Your task to perform on an android device: set default search engine in the chrome app Image 0: 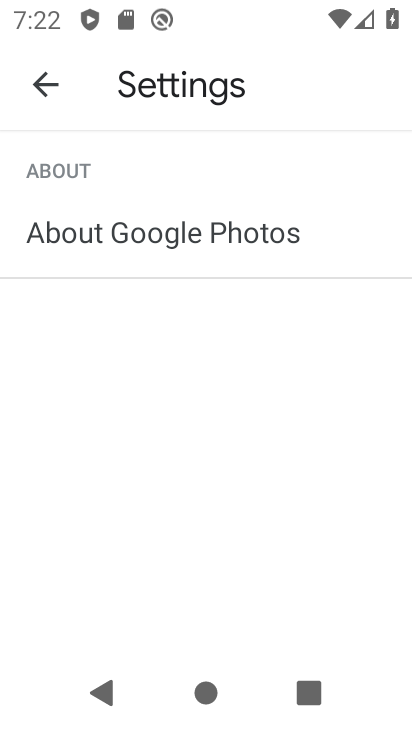
Step 0: press home button
Your task to perform on an android device: set default search engine in the chrome app Image 1: 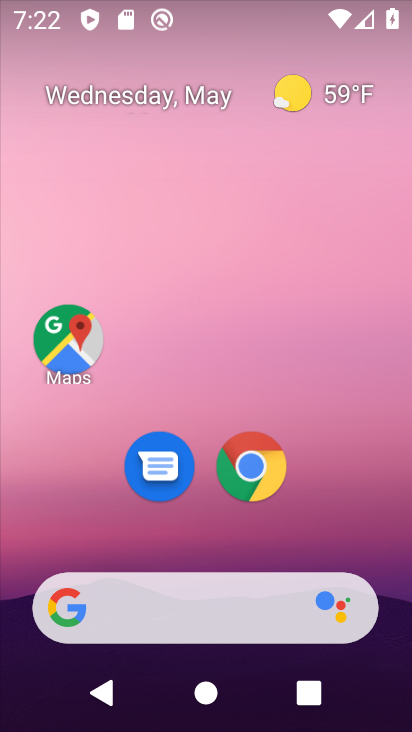
Step 1: drag from (283, 520) to (376, 105)
Your task to perform on an android device: set default search engine in the chrome app Image 2: 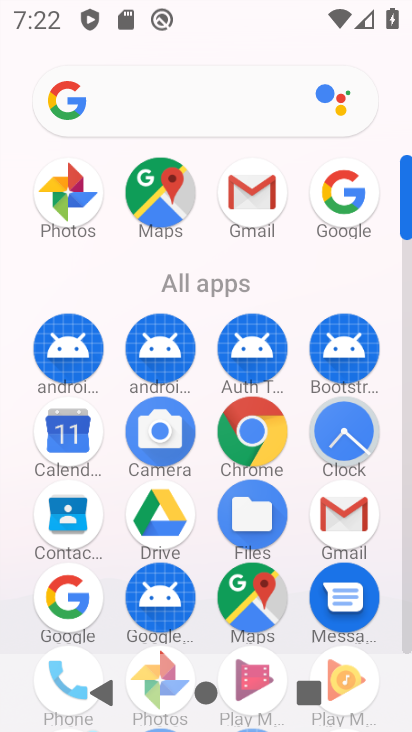
Step 2: click (234, 428)
Your task to perform on an android device: set default search engine in the chrome app Image 3: 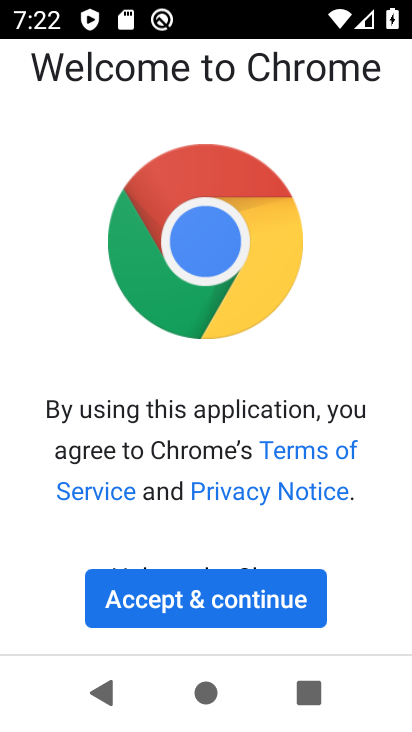
Step 3: click (240, 582)
Your task to perform on an android device: set default search engine in the chrome app Image 4: 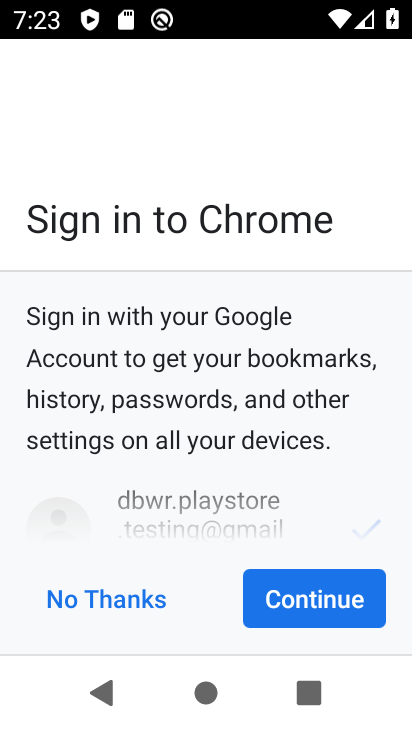
Step 4: click (311, 598)
Your task to perform on an android device: set default search engine in the chrome app Image 5: 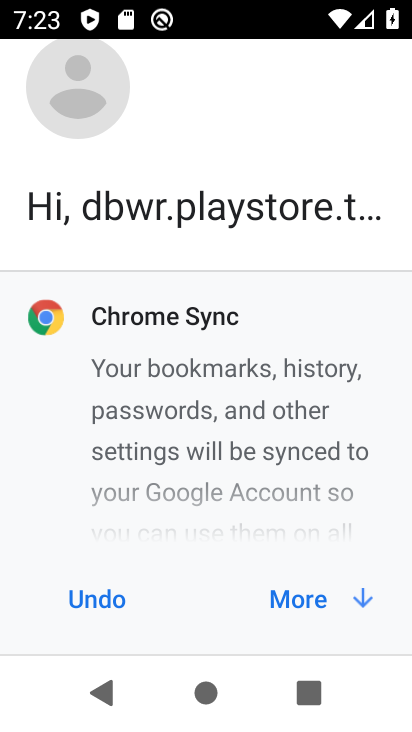
Step 5: click (308, 606)
Your task to perform on an android device: set default search engine in the chrome app Image 6: 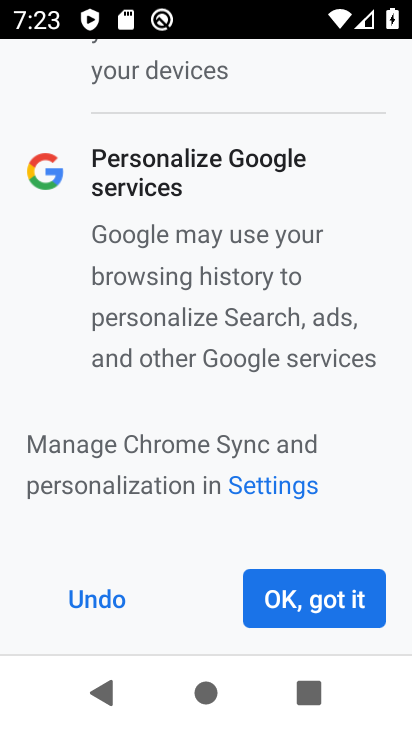
Step 6: click (297, 583)
Your task to perform on an android device: set default search engine in the chrome app Image 7: 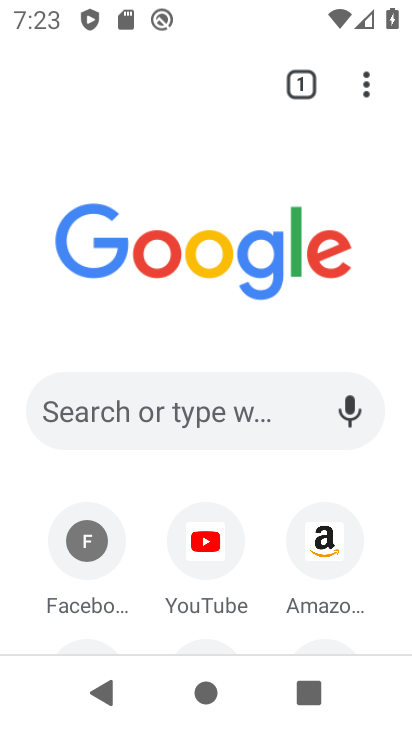
Step 7: click (359, 81)
Your task to perform on an android device: set default search engine in the chrome app Image 8: 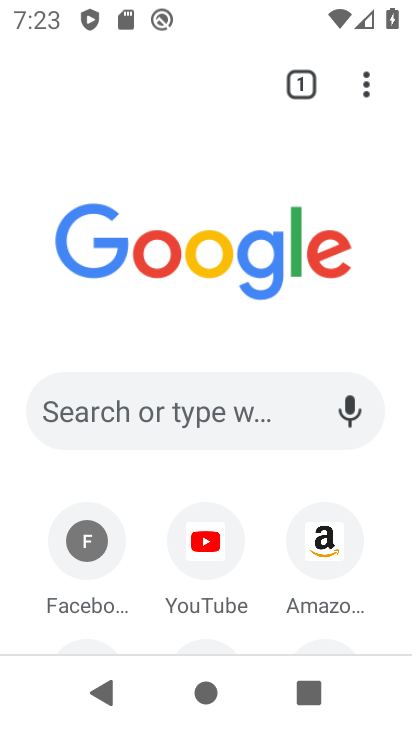
Step 8: click (358, 91)
Your task to perform on an android device: set default search engine in the chrome app Image 9: 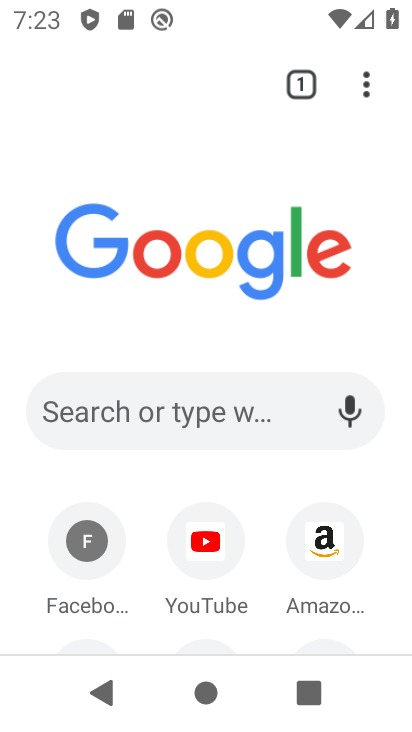
Step 9: click (357, 76)
Your task to perform on an android device: set default search engine in the chrome app Image 10: 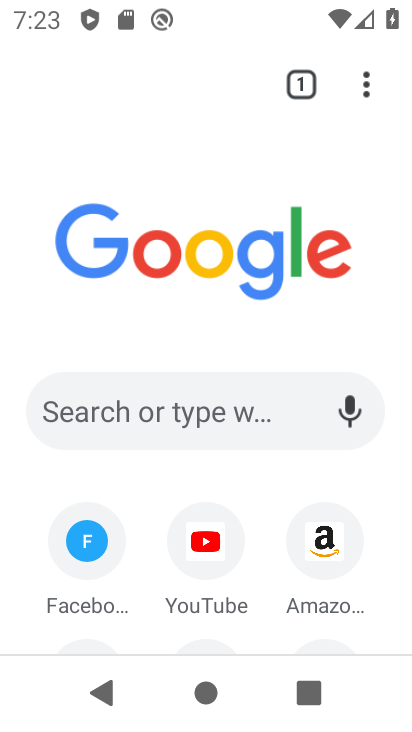
Step 10: click (354, 81)
Your task to perform on an android device: set default search engine in the chrome app Image 11: 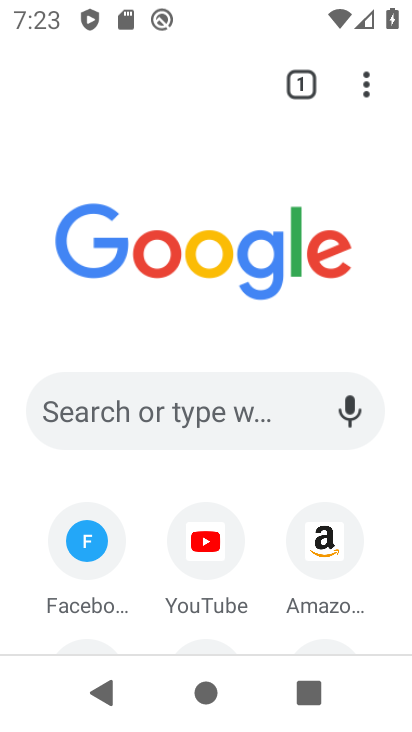
Step 11: click (346, 92)
Your task to perform on an android device: set default search engine in the chrome app Image 12: 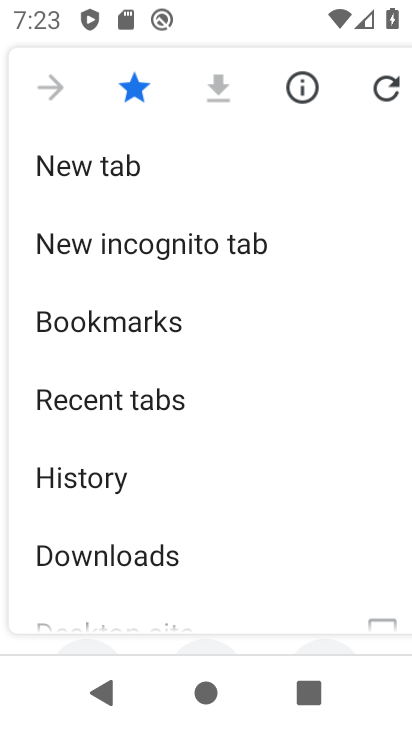
Step 12: drag from (116, 569) to (245, 170)
Your task to perform on an android device: set default search engine in the chrome app Image 13: 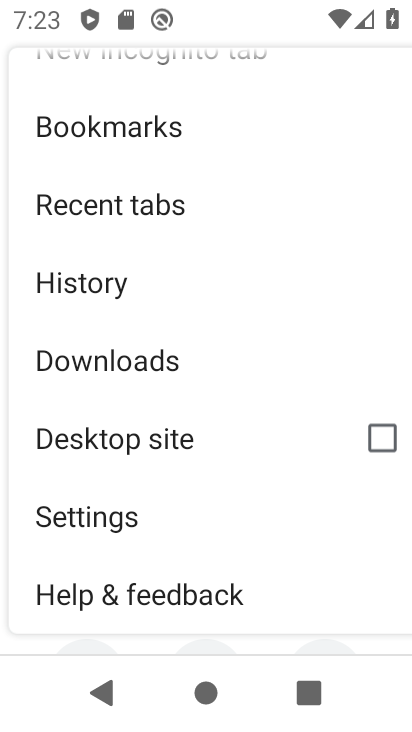
Step 13: click (71, 528)
Your task to perform on an android device: set default search engine in the chrome app Image 14: 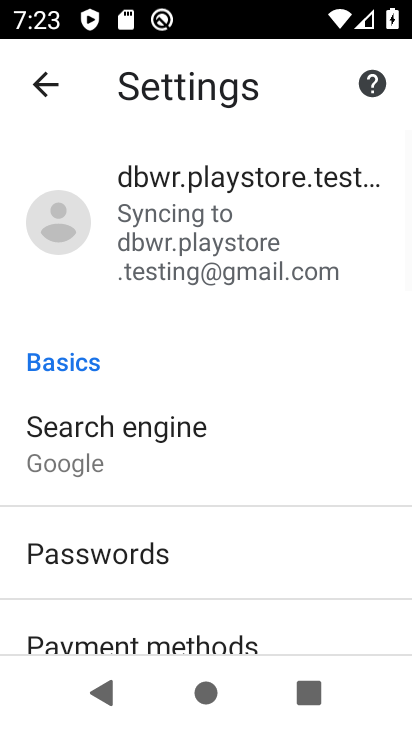
Step 14: click (135, 454)
Your task to perform on an android device: set default search engine in the chrome app Image 15: 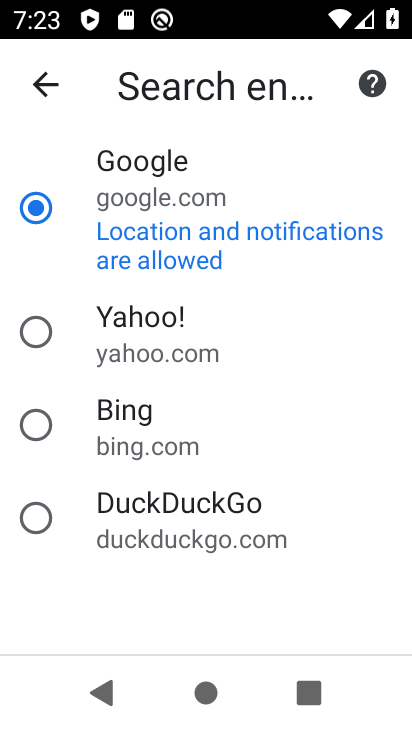
Step 15: click (128, 410)
Your task to perform on an android device: set default search engine in the chrome app Image 16: 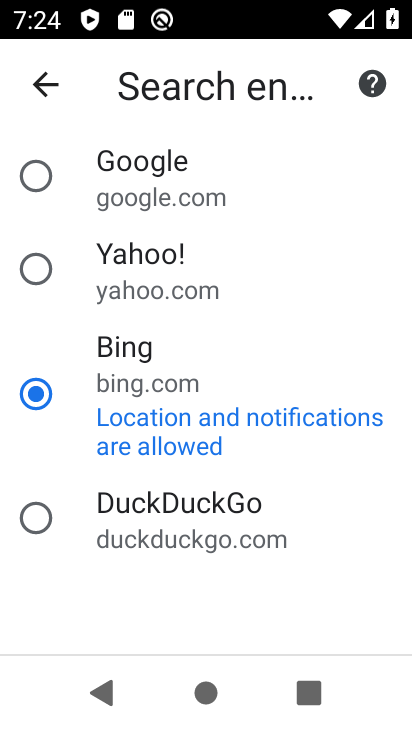
Step 16: task complete